Your task to perform on an android device: delete location history Image 0: 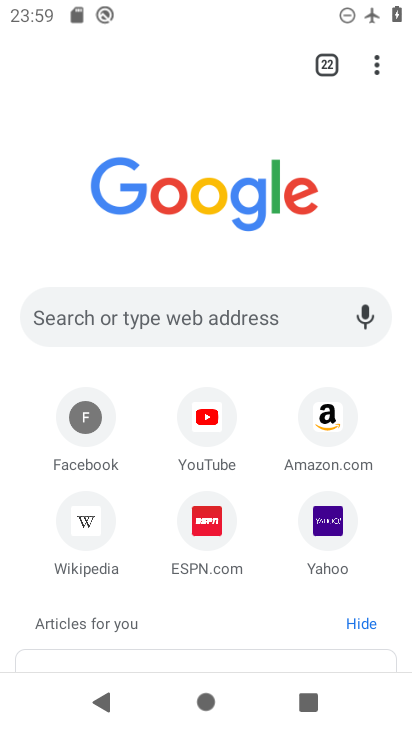
Step 0: press home button
Your task to perform on an android device: delete location history Image 1: 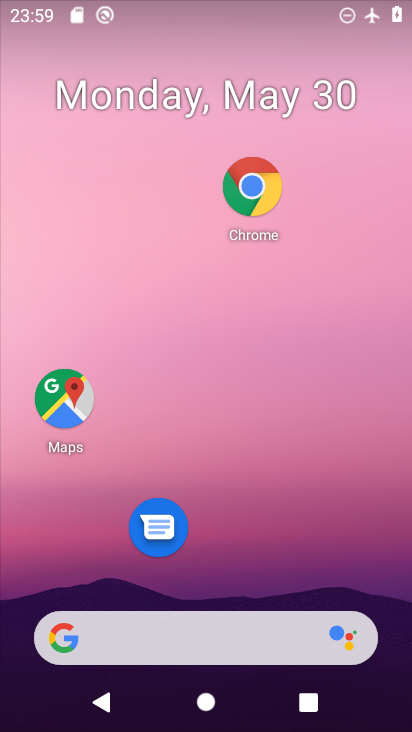
Step 1: click (41, 407)
Your task to perform on an android device: delete location history Image 2: 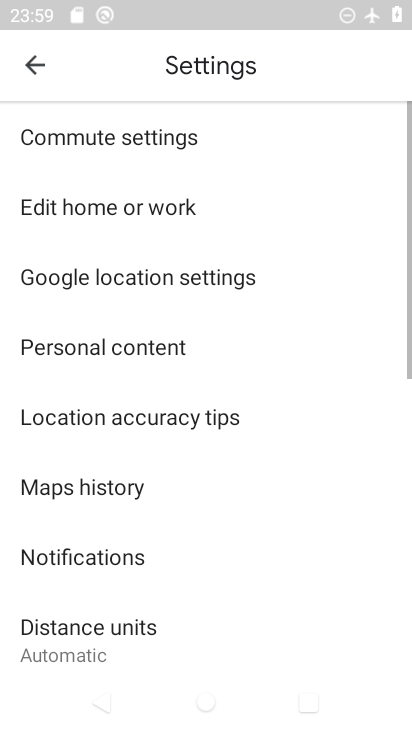
Step 2: click (45, 69)
Your task to perform on an android device: delete location history Image 3: 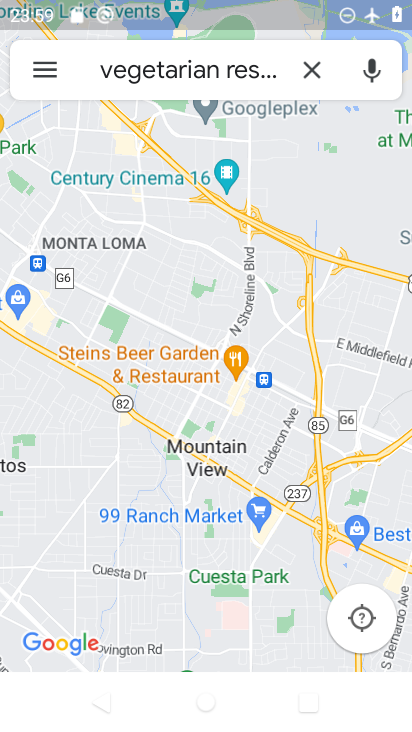
Step 3: click (44, 68)
Your task to perform on an android device: delete location history Image 4: 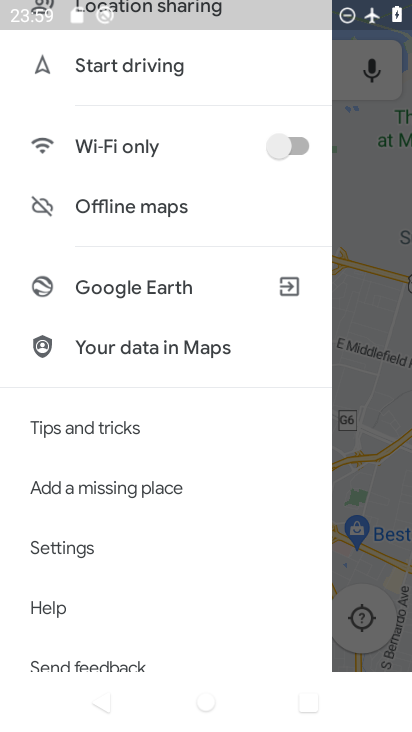
Step 4: drag from (139, 227) to (168, 665)
Your task to perform on an android device: delete location history Image 5: 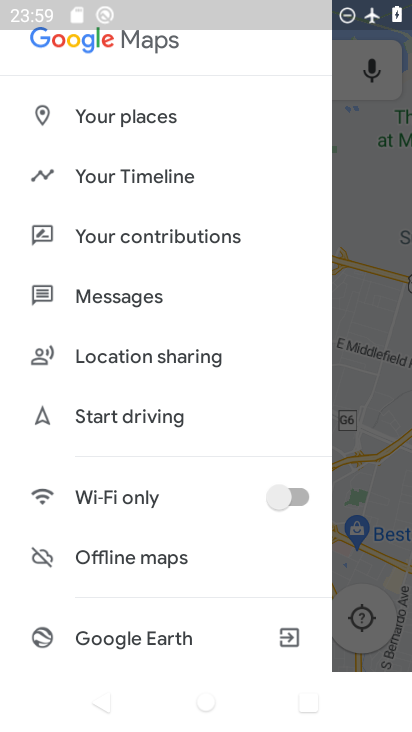
Step 5: click (103, 169)
Your task to perform on an android device: delete location history Image 6: 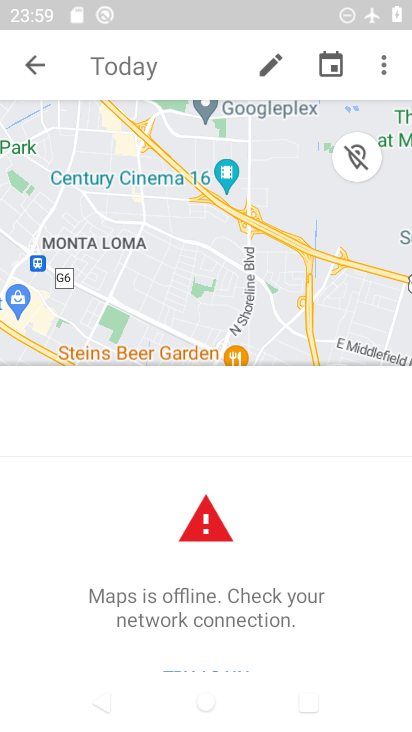
Step 6: click (386, 60)
Your task to perform on an android device: delete location history Image 7: 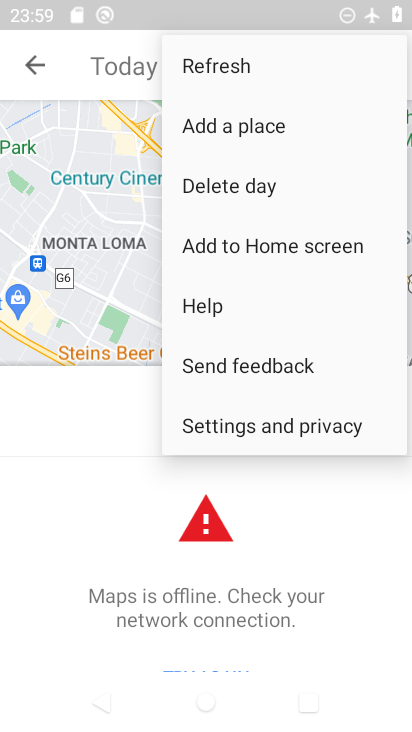
Step 7: click (261, 429)
Your task to perform on an android device: delete location history Image 8: 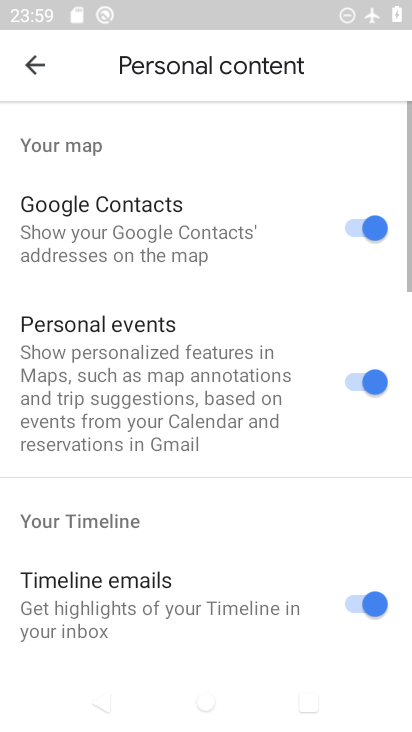
Step 8: drag from (139, 624) to (251, 144)
Your task to perform on an android device: delete location history Image 9: 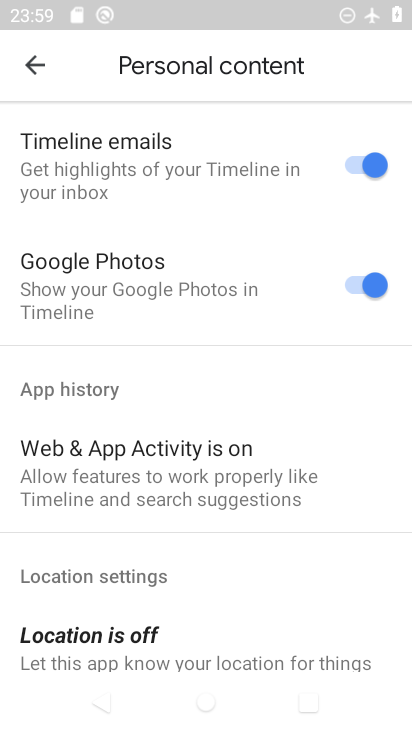
Step 9: drag from (178, 598) to (291, 181)
Your task to perform on an android device: delete location history Image 10: 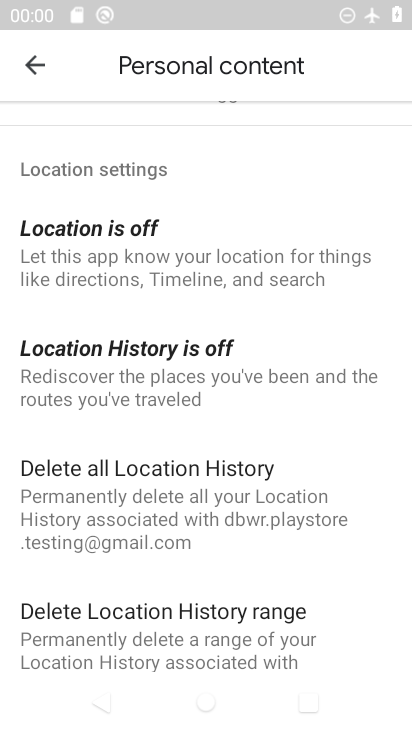
Step 10: click (159, 502)
Your task to perform on an android device: delete location history Image 11: 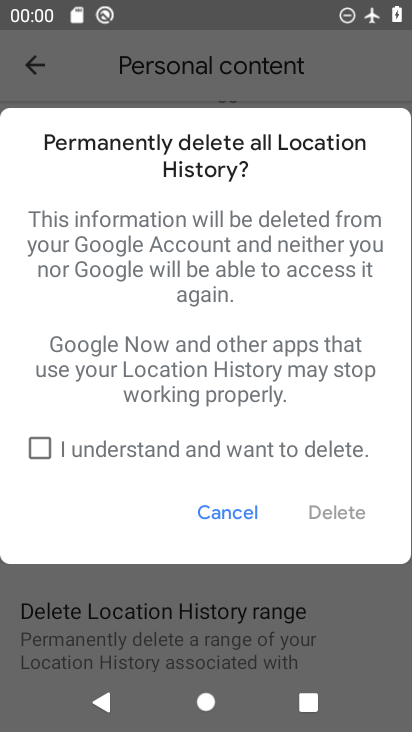
Step 11: click (51, 444)
Your task to perform on an android device: delete location history Image 12: 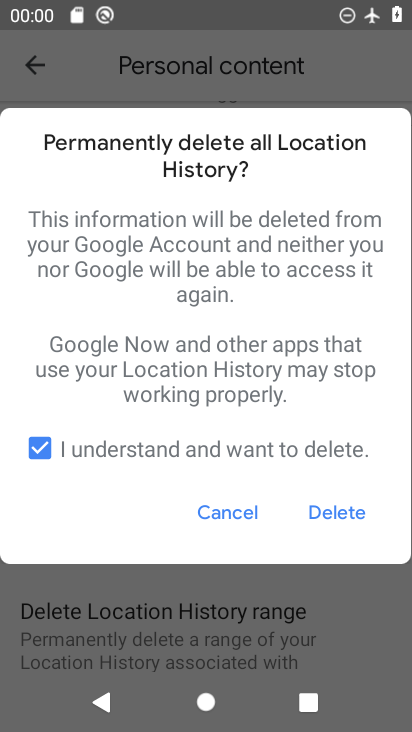
Step 12: click (336, 509)
Your task to perform on an android device: delete location history Image 13: 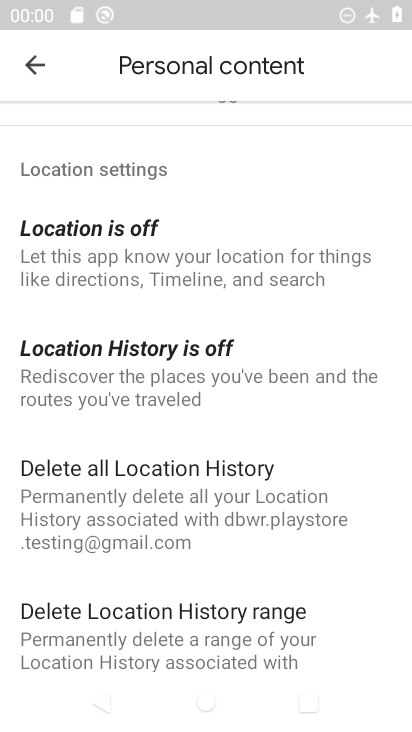
Step 13: task complete